Your task to perform on an android device: Open my contact list Image 0: 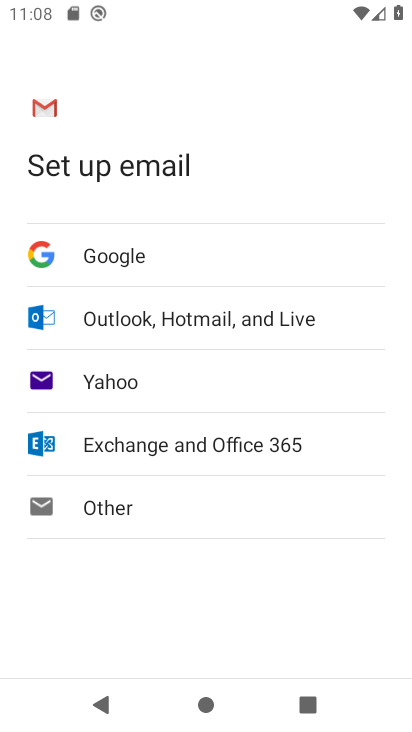
Step 0: press home button
Your task to perform on an android device: Open my contact list Image 1: 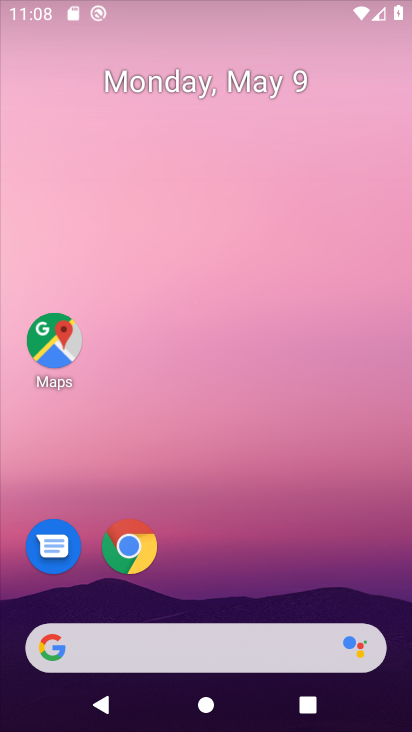
Step 1: drag from (311, 556) to (292, 1)
Your task to perform on an android device: Open my contact list Image 2: 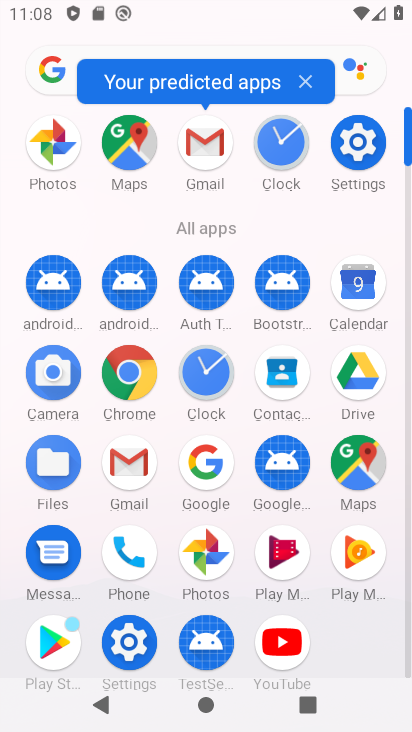
Step 2: click (266, 376)
Your task to perform on an android device: Open my contact list Image 3: 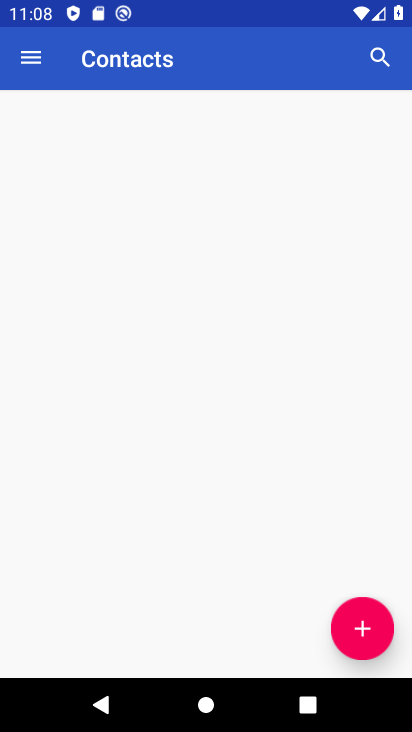
Step 3: task complete